Your task to perform on an android device: Search for Mexican restaurants on Maps Image 0: 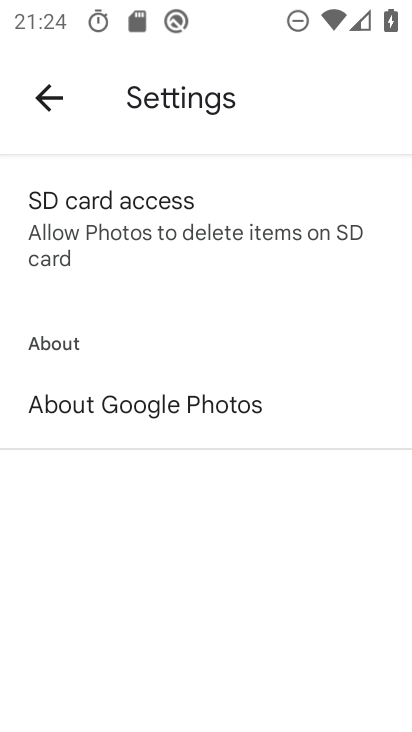
Step 0: press home button
Your task to perform on an android device: Search for Mexican restaurants on Maps Image 1: 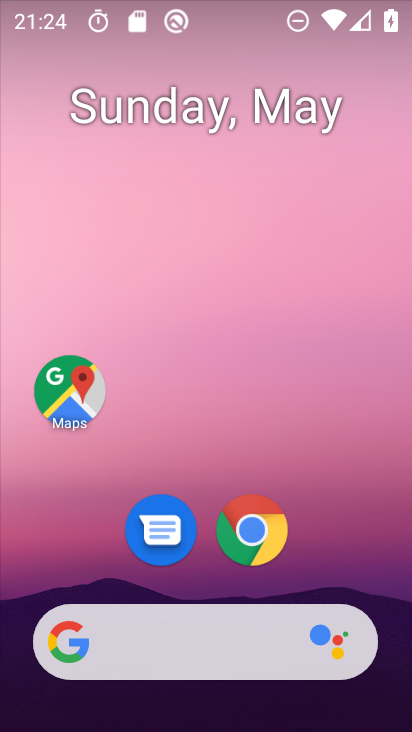
Step 1: drag from (234, 682) to (347, 256)
Your task to perform on an android device: Search for Mexican restaurants on Maps Image 2: 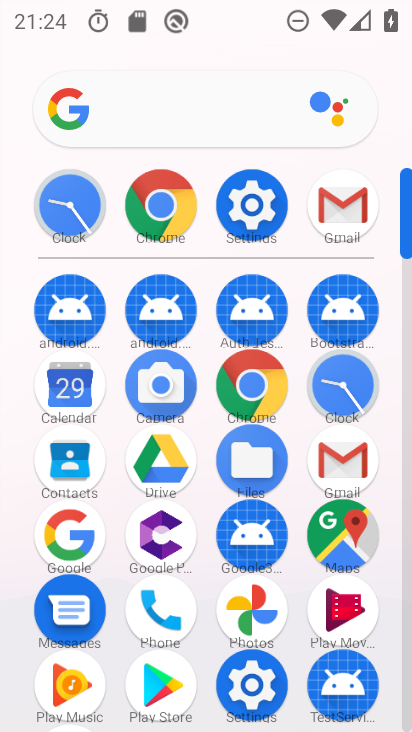
Step 2: click (344, 525)
Your task to perform on an android device: Search for Mexican restaurants on Maps Image 3: 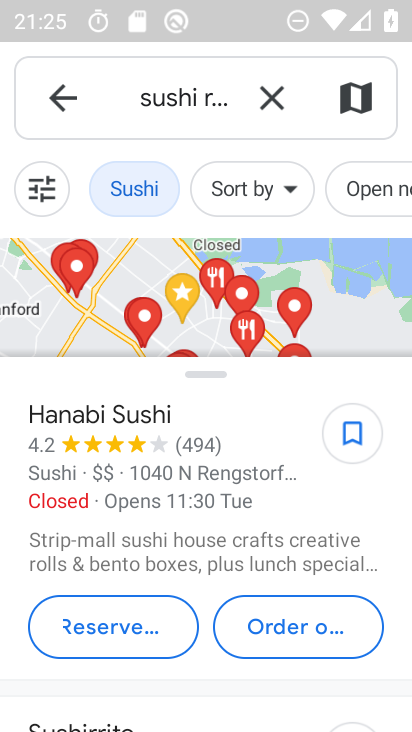
Step 3: click (270, 106)
Your task to perform on an android device: Search for Mexican restaurants on Maps Image 4: 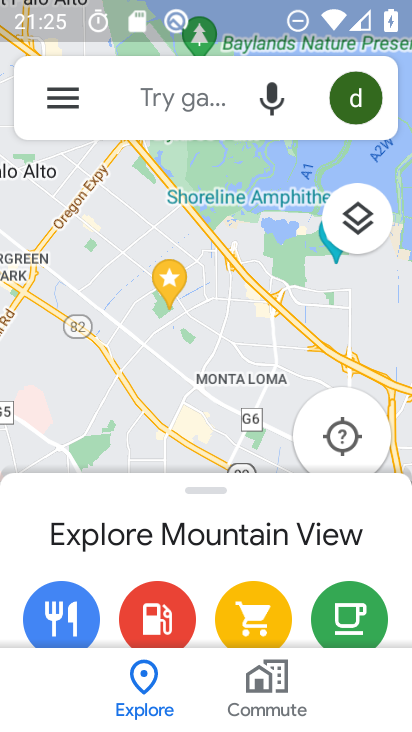
Step 4: click (155, 81)
Your task to perform on an android device: Search for Mexican restaurants on Maps Image 5: 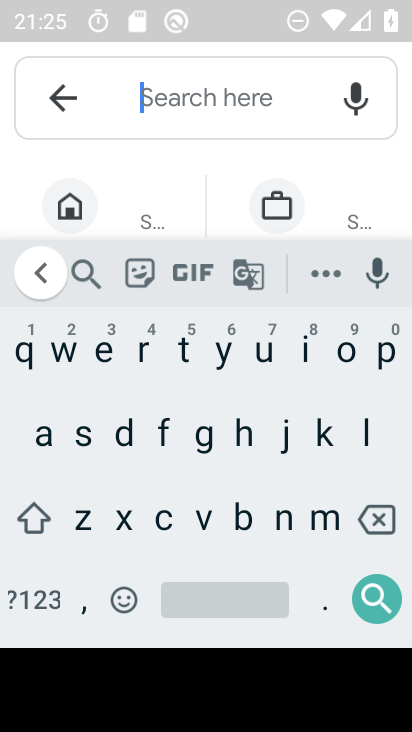
Step 5: click (315, 524)
Your task to perform on an android device: Search for Mexican restaurants on Maps Image 6: 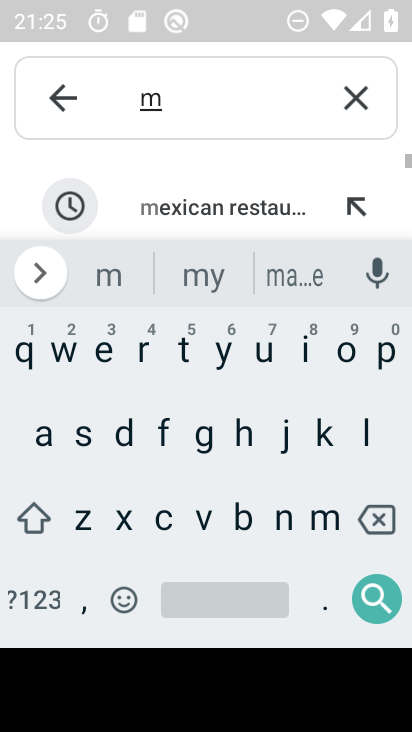
Step 6: click (100, 356)
Your task to perform on an android device: Search for Mexican restaurants on Maps Image 7: 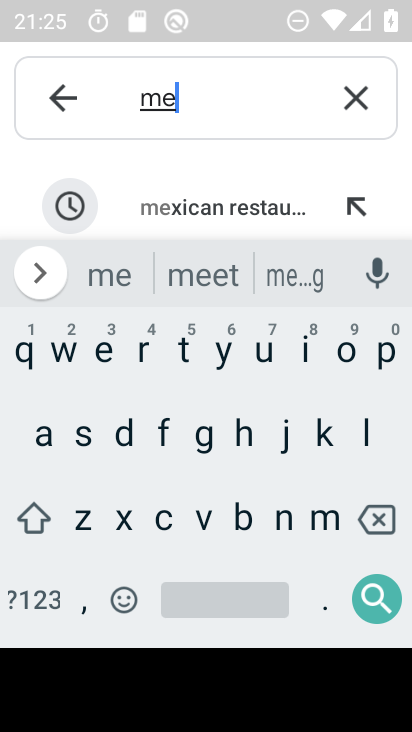
Step 7: click (161, 218)
Your task to perform on an android device: Search for Mexican restaurants on Maps Image 8: 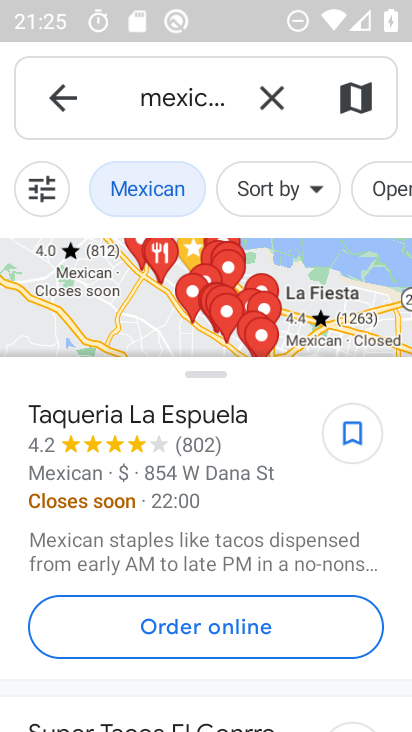
Step 8: click (123, 311)
Your task to perform on an android device: Search for Mexican restaurants on Maps Image 9: 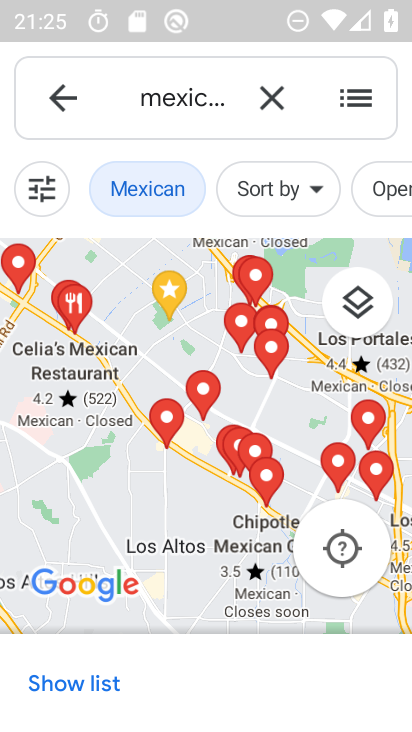
Step 9: task complete